Your task to perform on an android device: toggle notification dots Image 0: 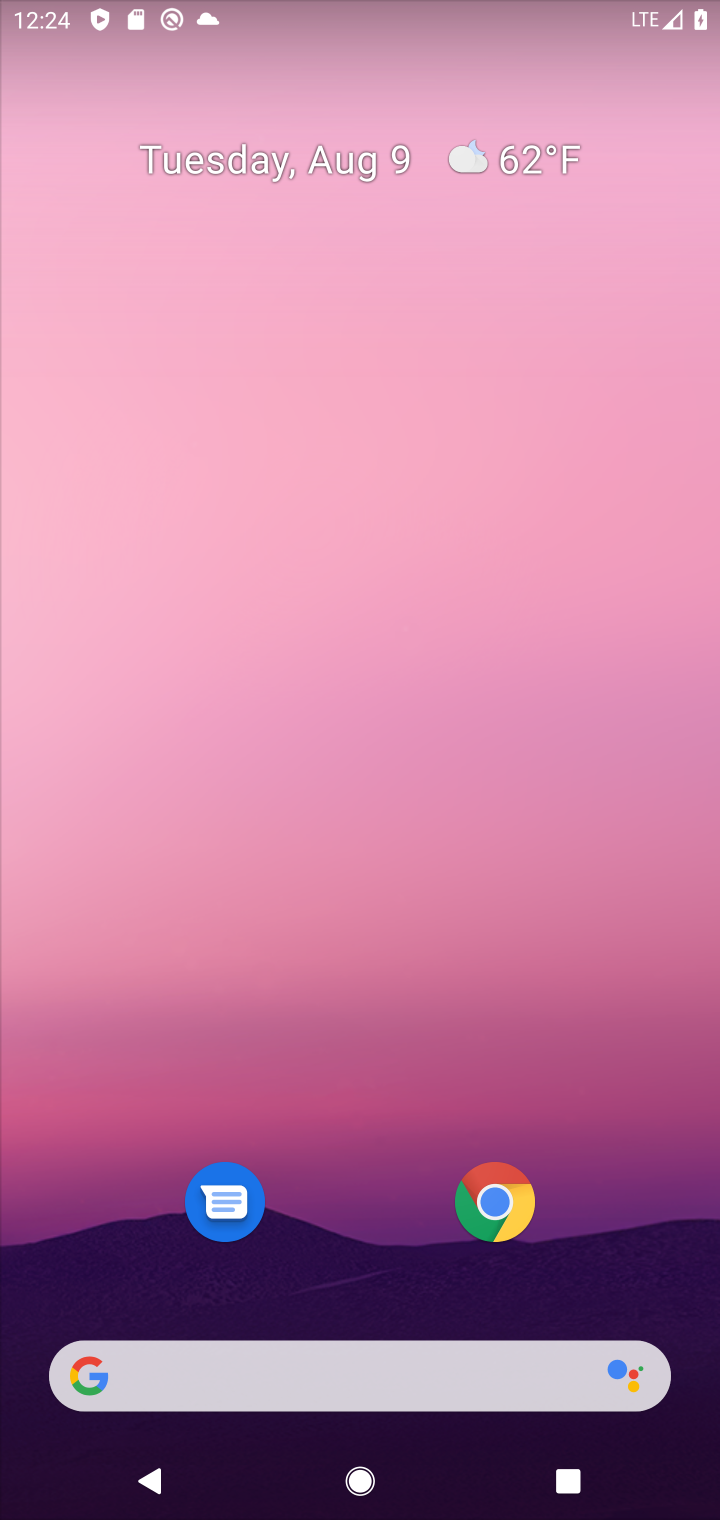
Step 0: press back button
Your task to perform on an android device: toggle notification dots Image 1: 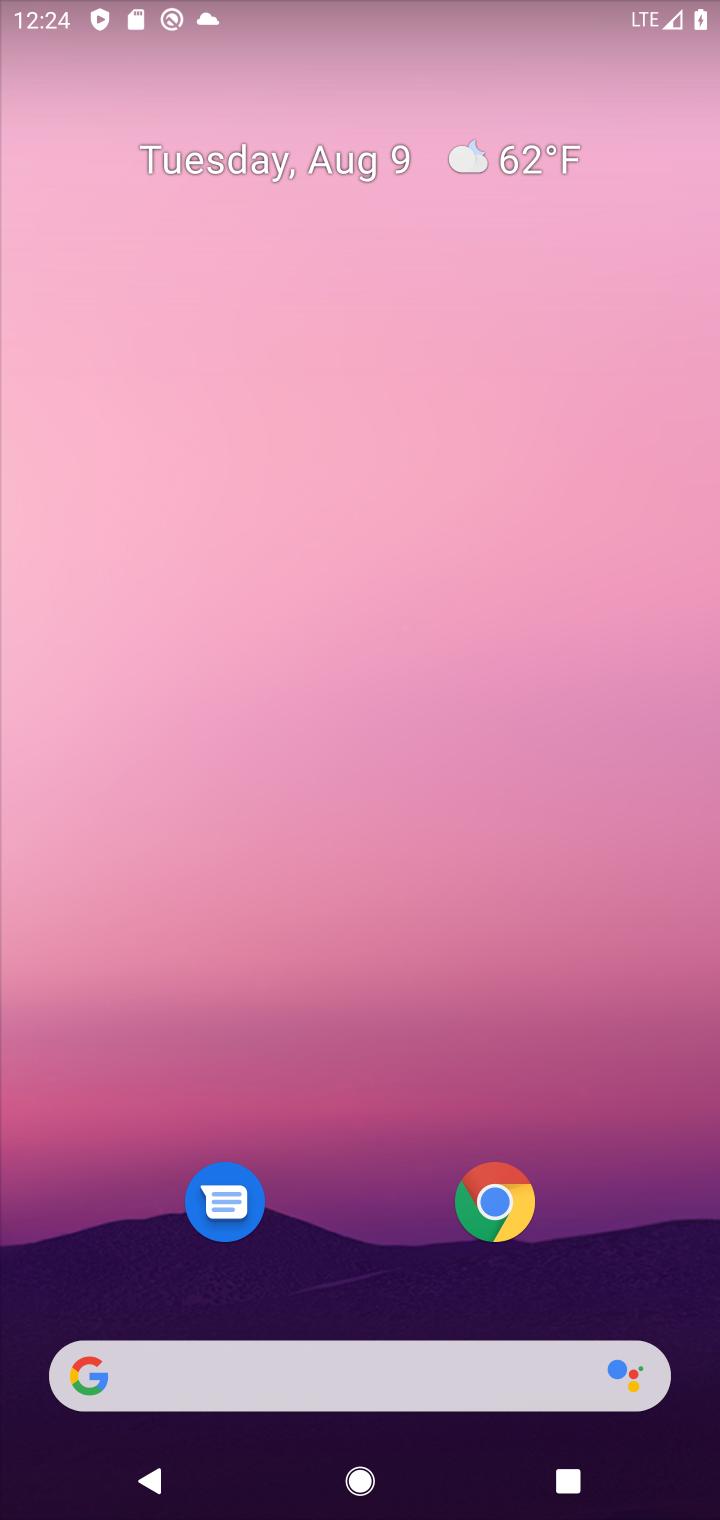
Step 1: drag from (330, 1191) to (327, 282)
Your task to perform on an android device: toggle notification dots Image 2: 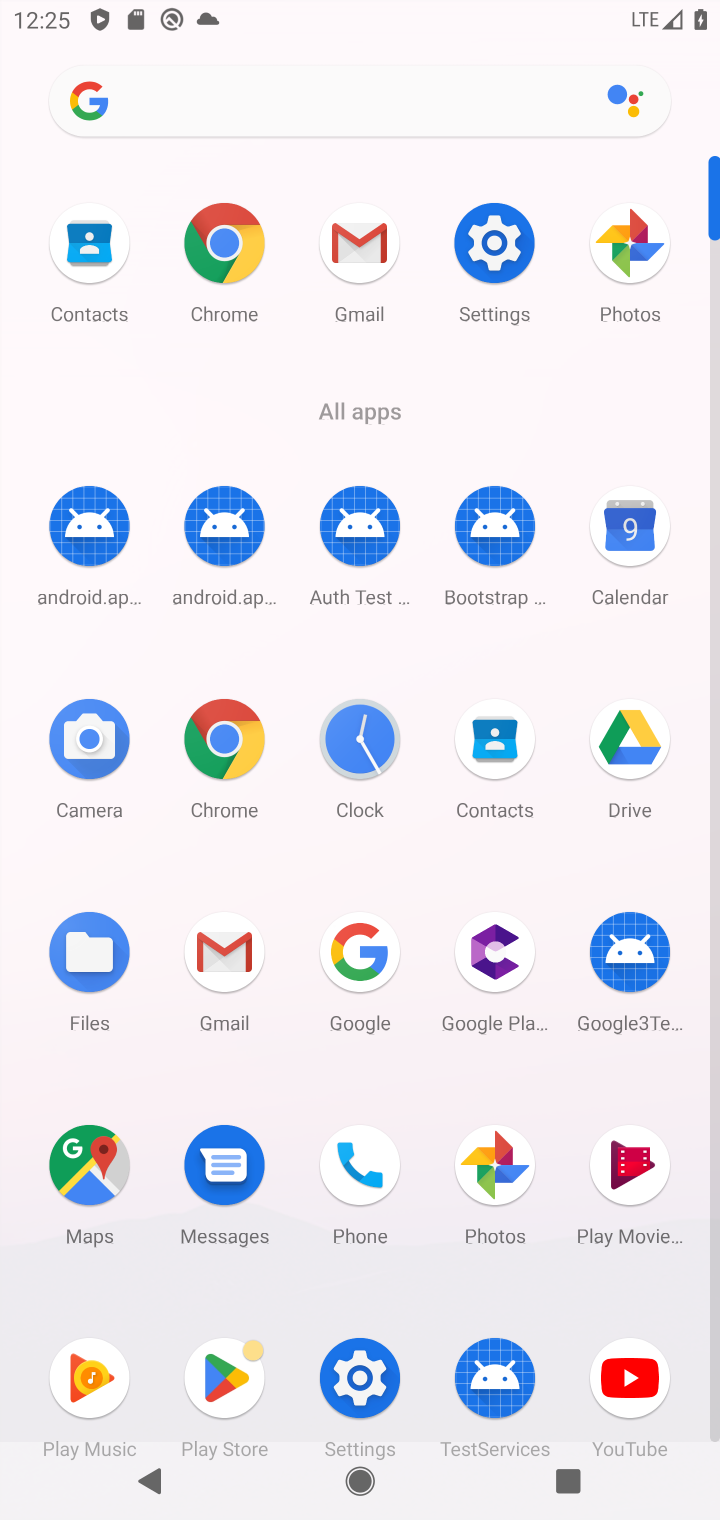
Step 2: click (503, 240)
Your task to perform on an android device: toggle notification dots Image 3: 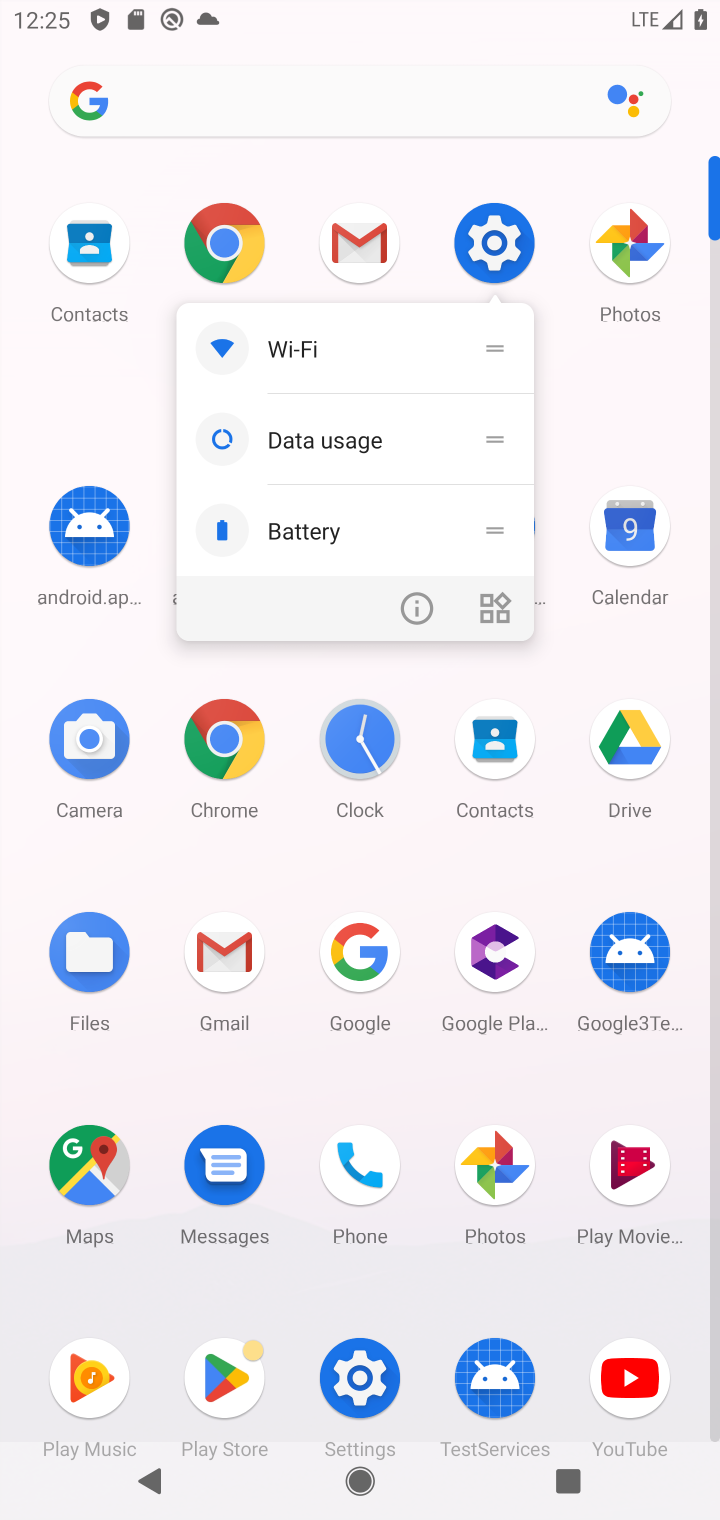
Step 3: click (482, 240)
Your task to perform on an android device: toggle notification dots Image 4: 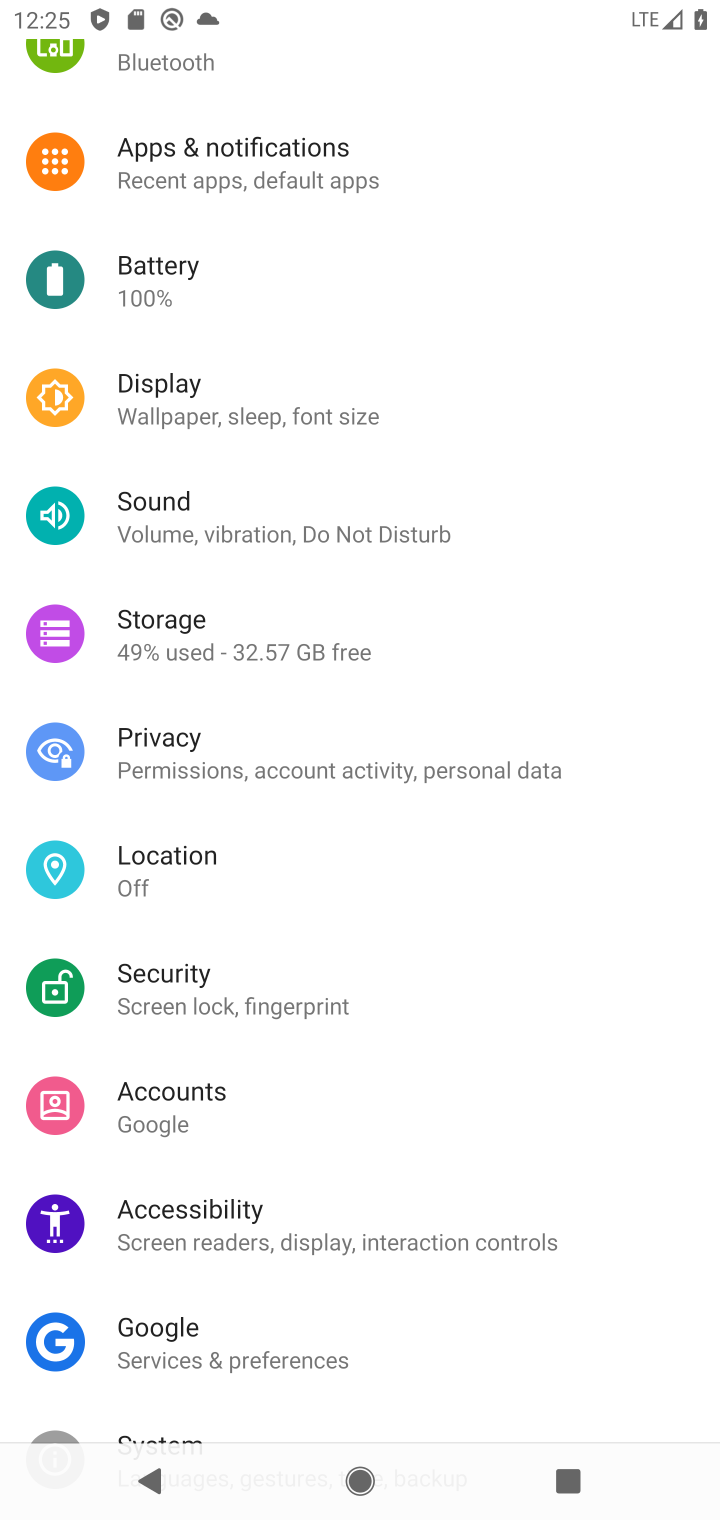
Step 4: click (191, 187)
Your task to perform on an android device: toggle notification dots Image 5: 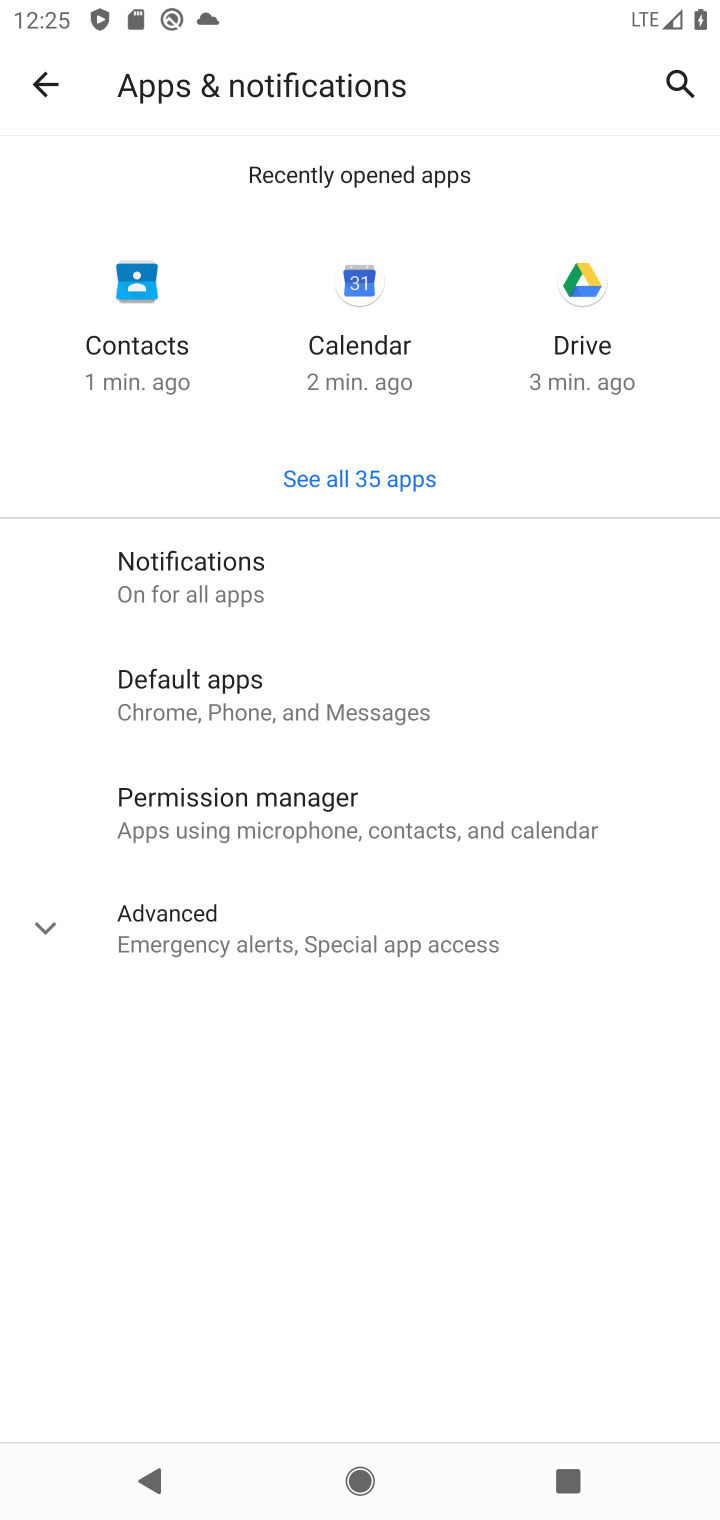
Step 5: click (174, 545)
Your task to perform on an android device: toggle notification dots Image 6: 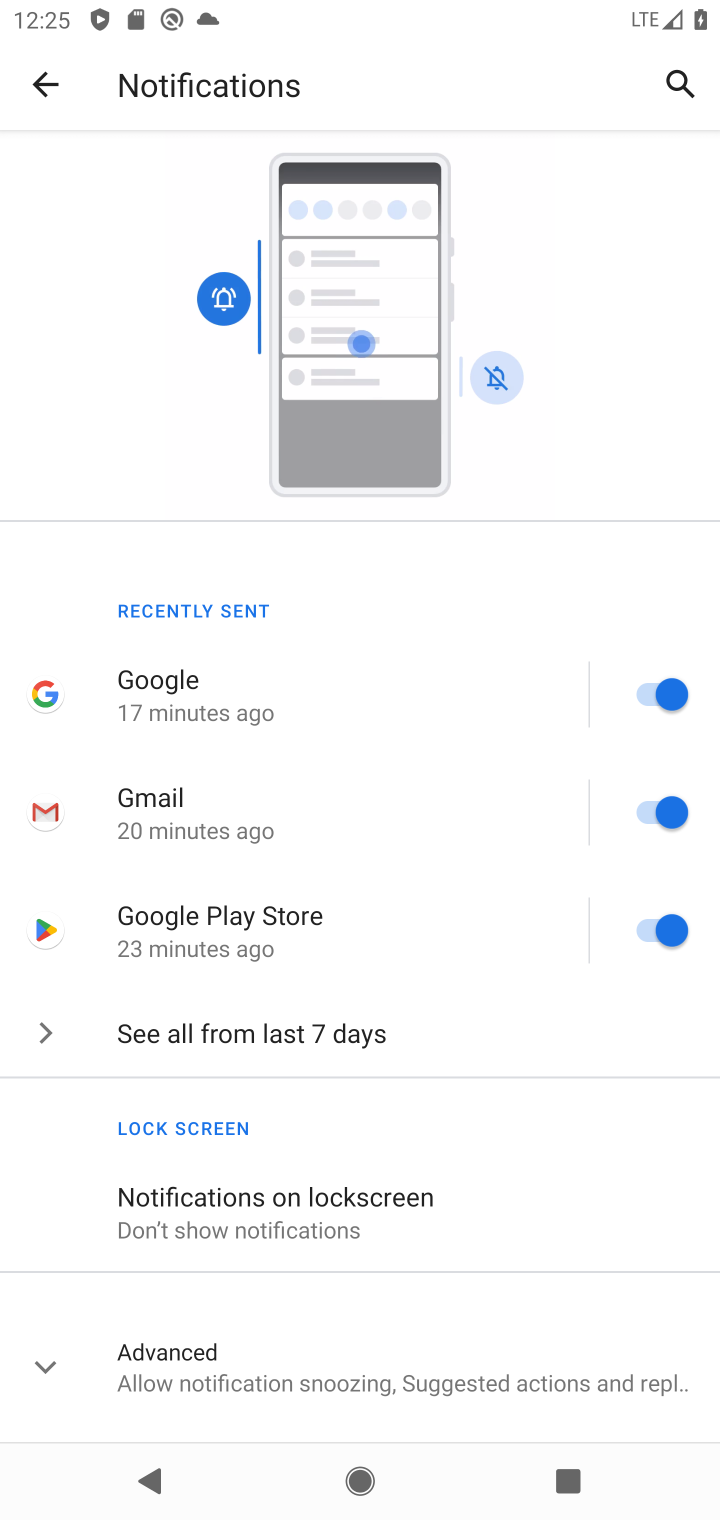
Step 6: click (134, 1344)
Your task to perform on an android device: toggle notification dots Image 7: 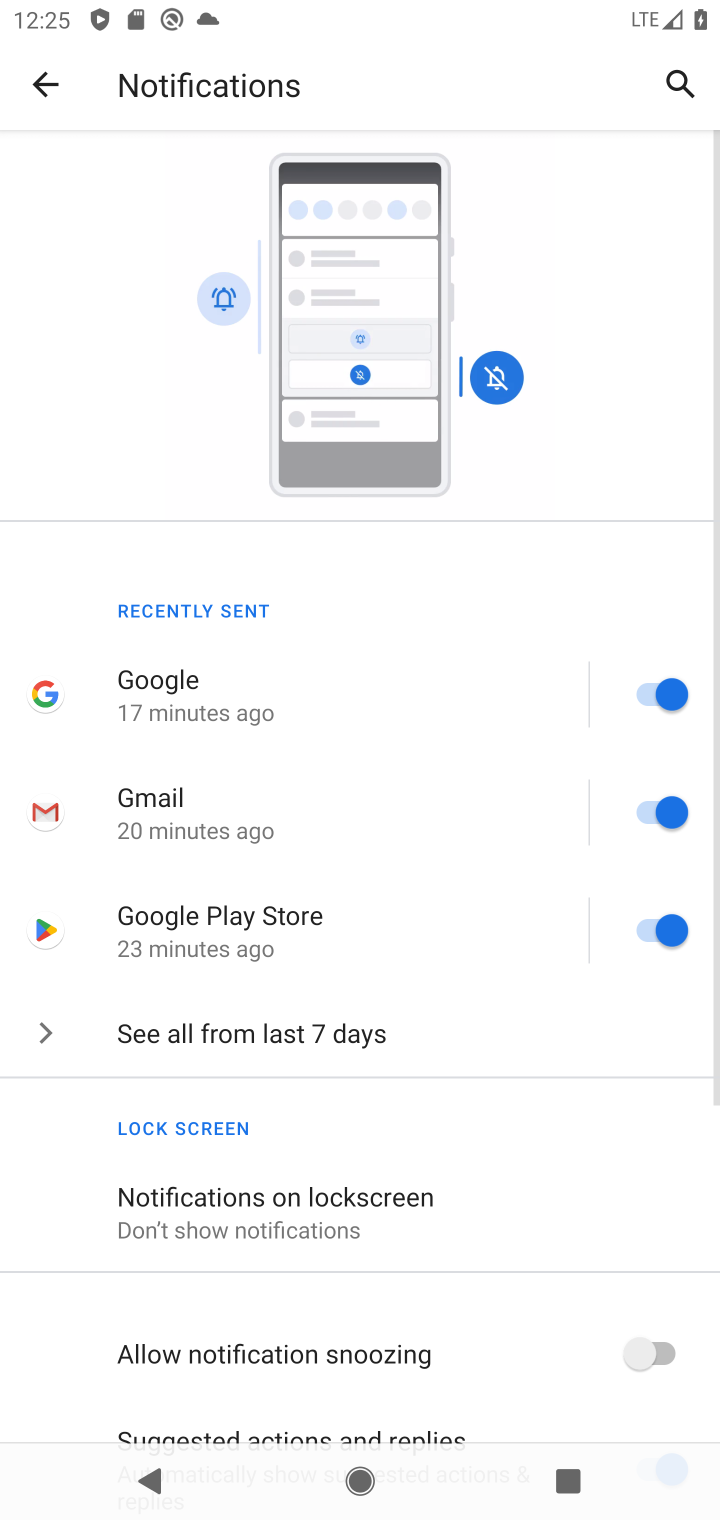
Step 7: drag from (275, 976) to (324, 789)
Your task to perform on an android device: toggle notification dots Image 8: 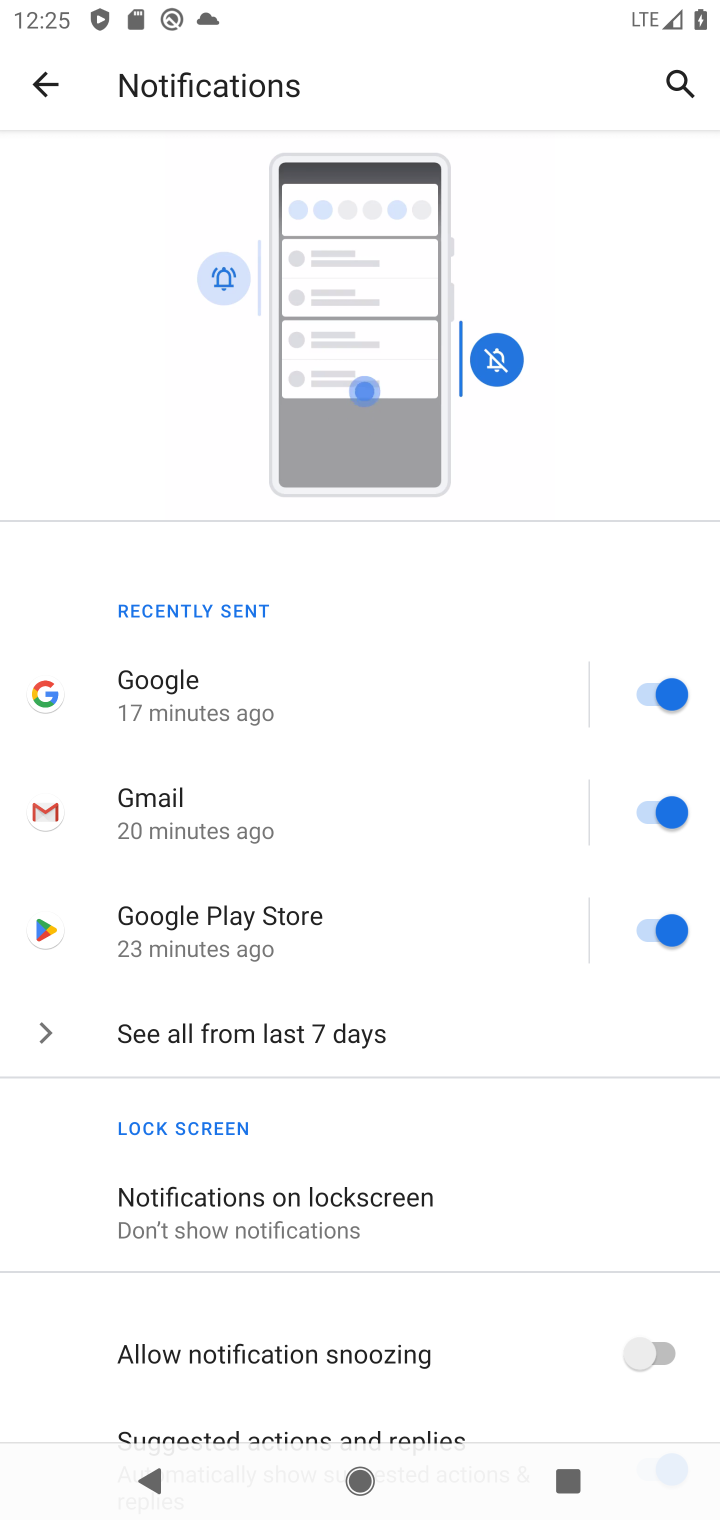
Step 8: drag from (337, 758) to (338, 535)
Your task to perform on an android device: toggle notification dots Image 9: 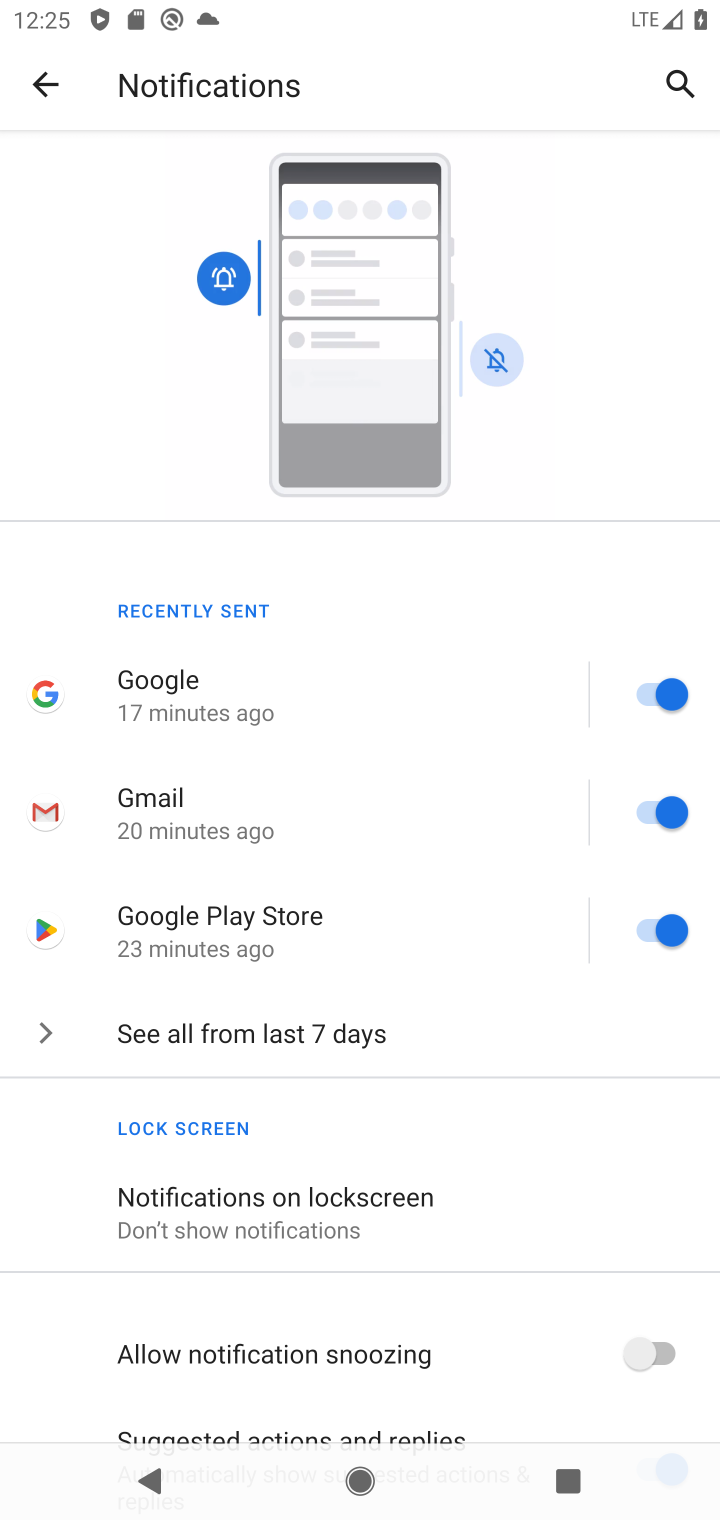
Step 9: drag from (347, 1385) to (347, 757)
Your task to perform on an android device: toggle notification dots Image 10: 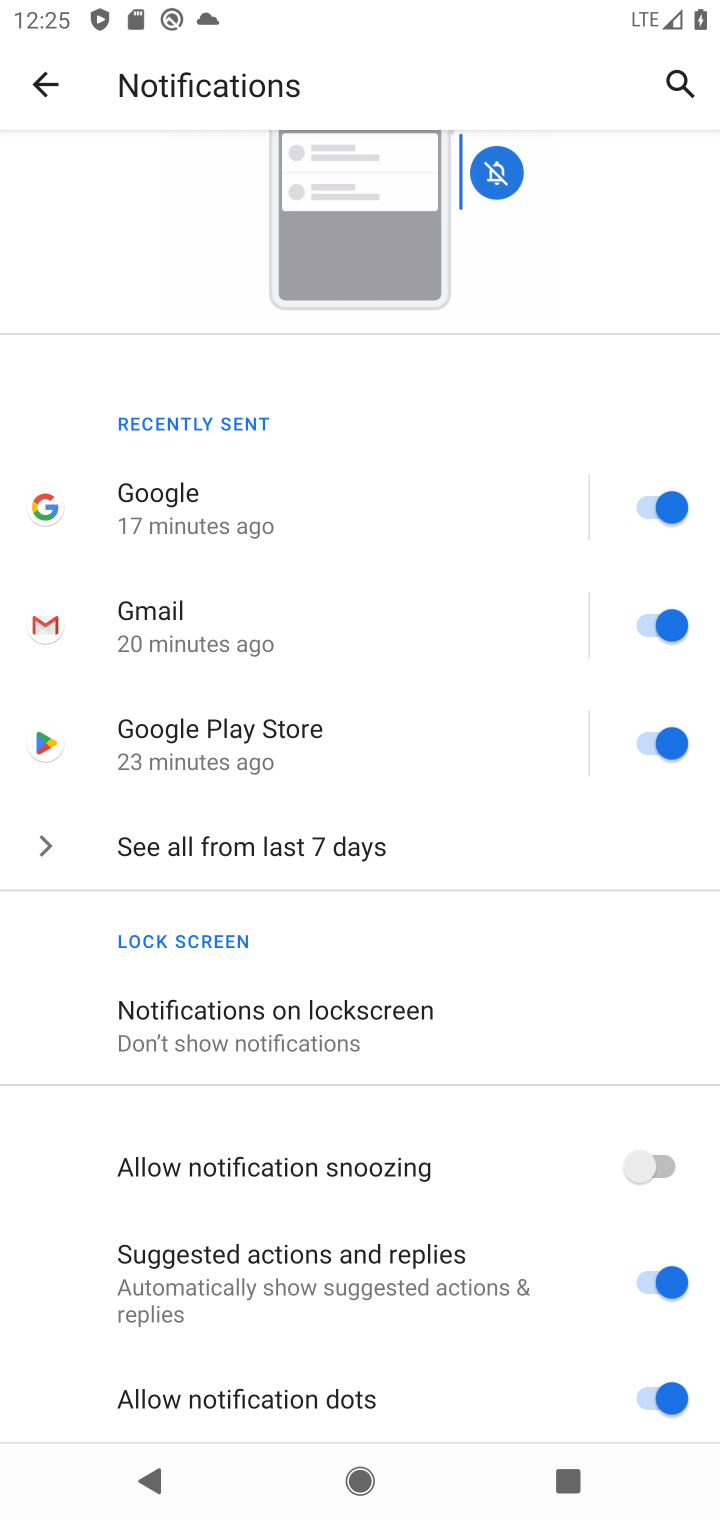
Step 10: click (657, 1399)
Your task to perform on an android device: toggle notification dots Image 11: 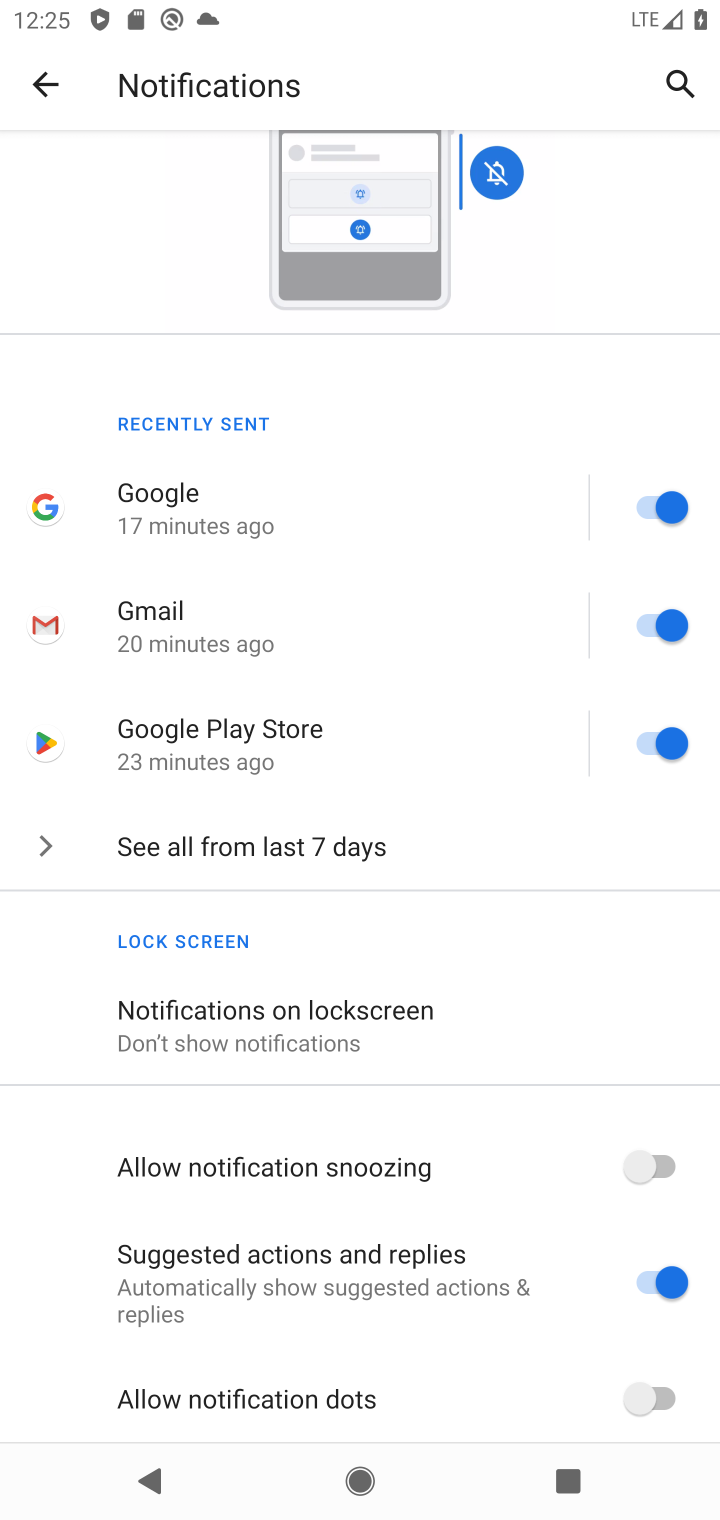
Step 11: task complete